Your task to perform on an android device: turn on sleep mode Image 0: 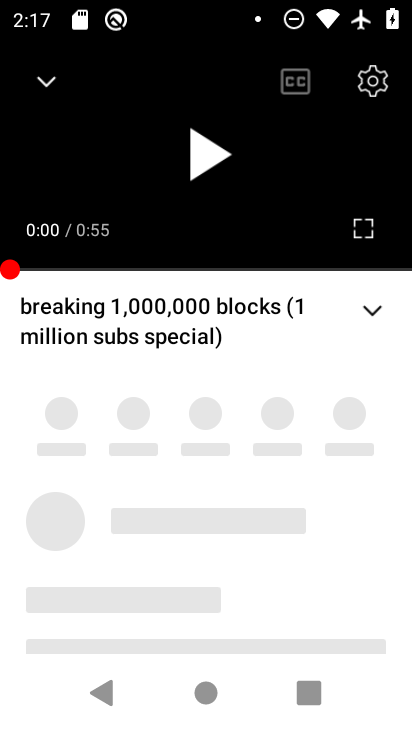
Step 0: press home button
Your task to perform on an android device: turn on sleep mode Image 1: 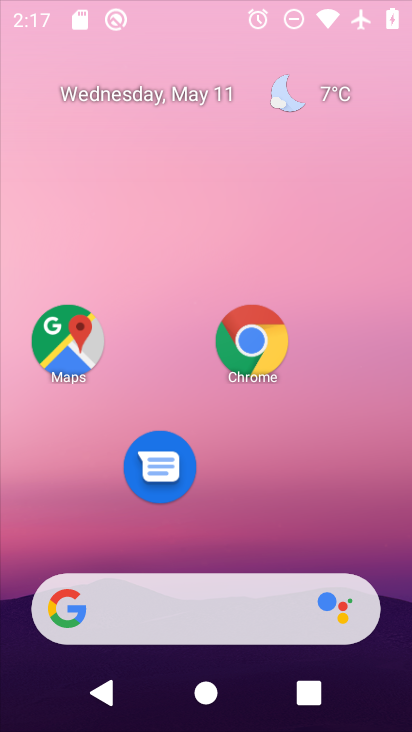
Step 1: press home button
Your task to perform on an android device: turn on sleep mode Image 2: 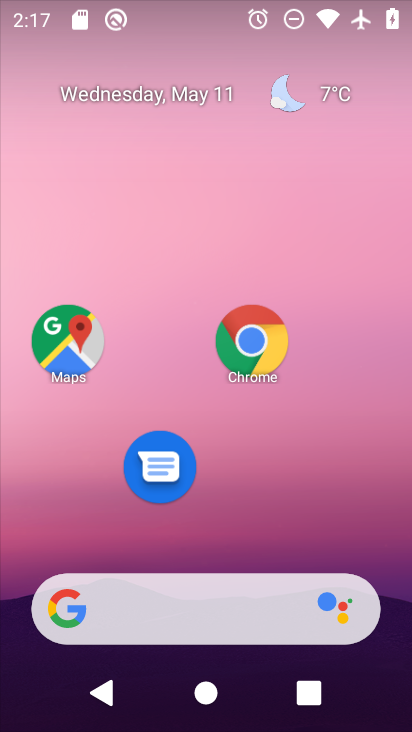
Step 2: drag from (160, 597) to (304, 145)
Your task to perform on an android device: turn on sleep mode Image 3: 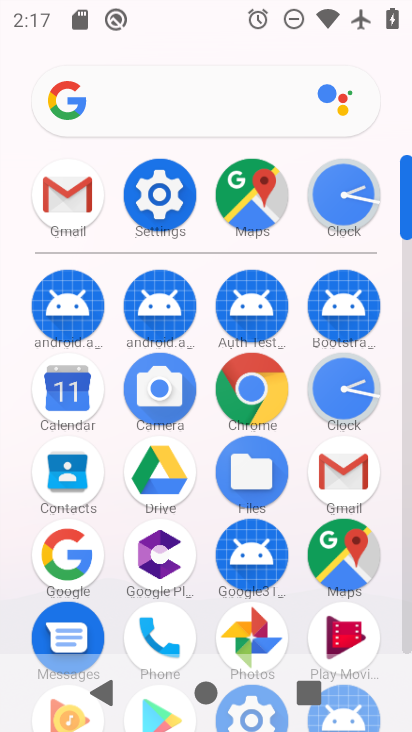
Step 3: click (169, 197)
Your task to perform on an android device: turn on sleep mode Image 4: 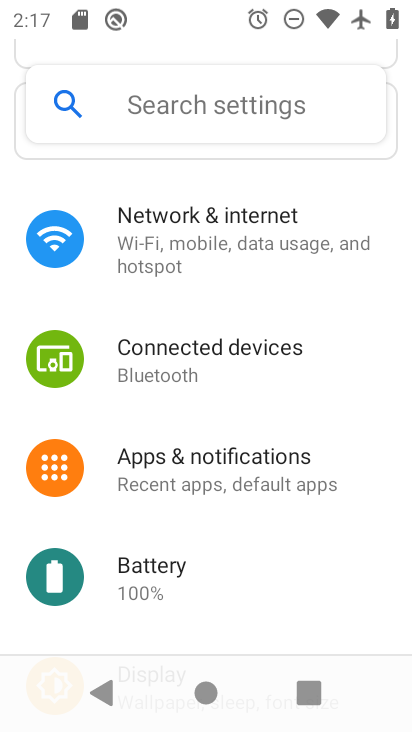
Step 4: drag from (222, 536) to (320, 243)
Your task to perform on an android device: turn on sleep mode Image 5: 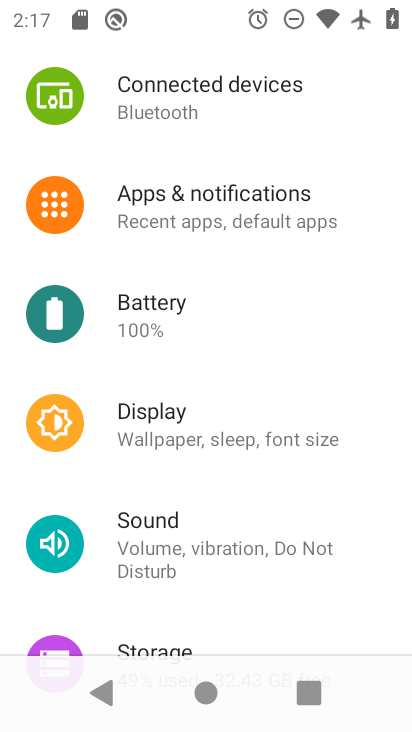
Step 5: click (158, 430)
Your task to perform on an android device: turn on sleep mode Image 6: 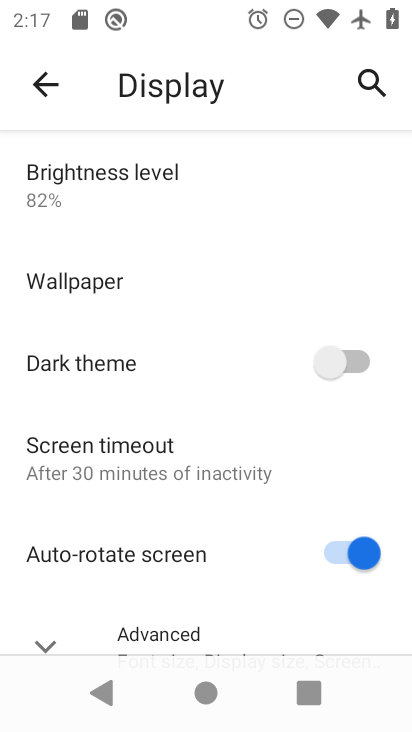
Step 6: task complete